Your task to perform on an android device: turn on sleep mode Image 0: 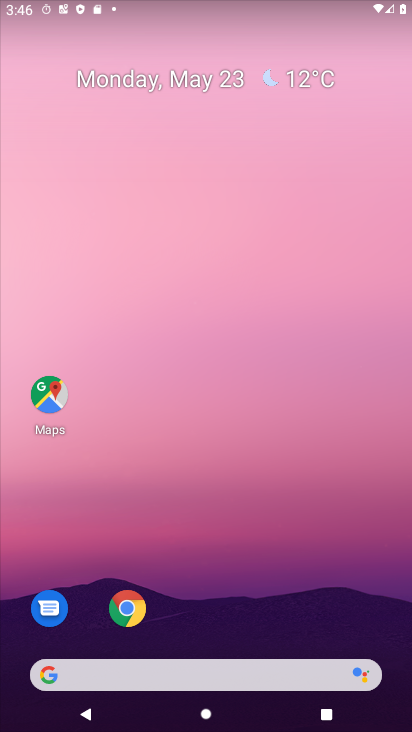
Step 0: drag from (257, 484) to (228, 23)
Your task to perform on an android device: turn on sleep mode Image 1: 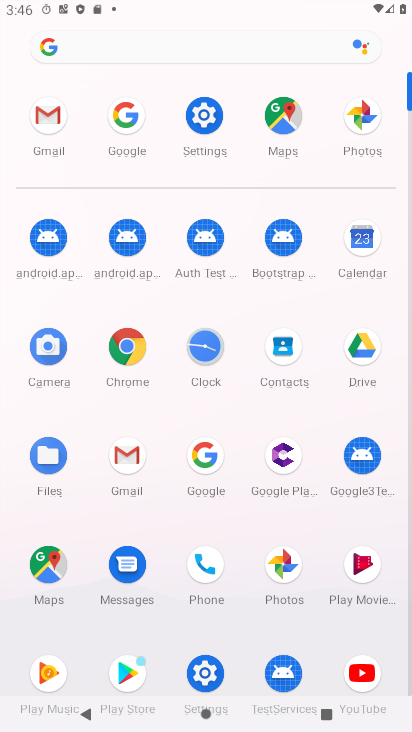
Step 1: click (212, 121)
Your task to perform on an android device: turn on sleep mode Image 2: 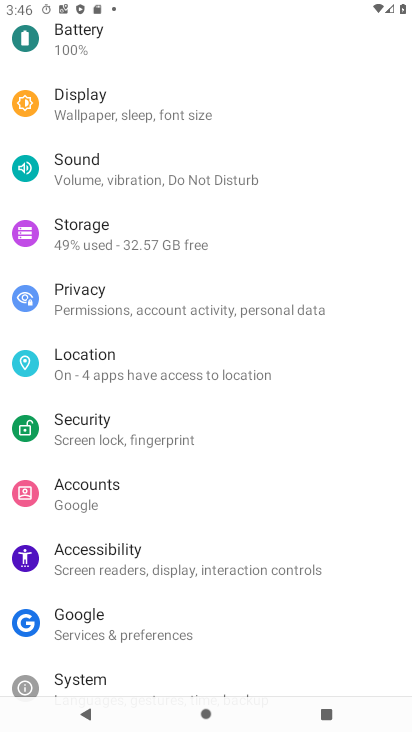
Step 2: click (144, 98)
Your task to perform on an android device: turn on sleep mode Image 3: 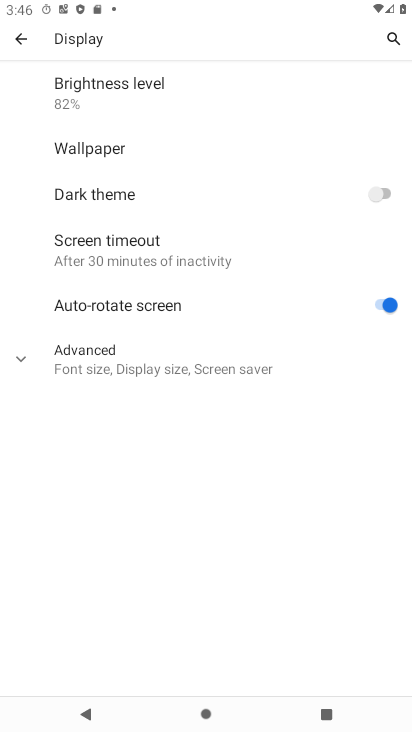
Step 3: task complete